Your task to perform on an android device: Search for Mexican restaurants on Maps Image 0: 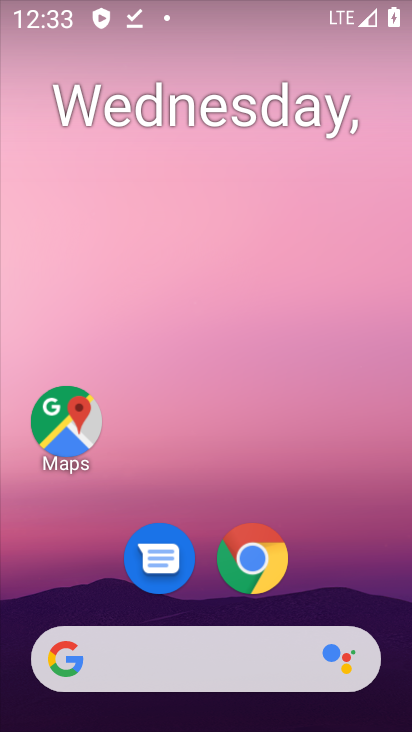
Step 0: drag from (227, 597) to (133, 222)
Your task to perform on an android device: Search for Mexican restaurants on Maps Image 1: 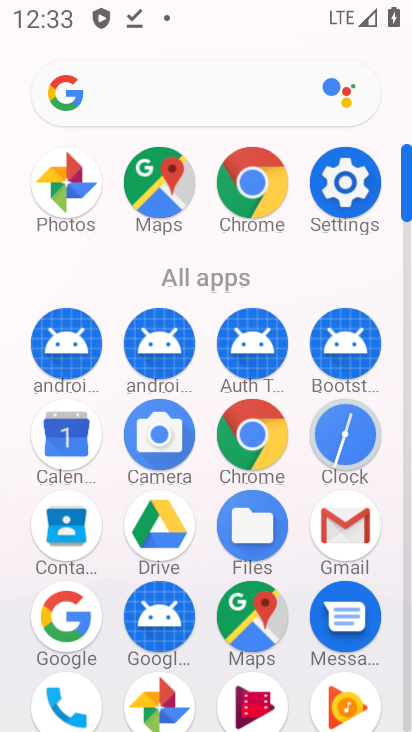
Step 1: click (229, 606)
Your task to perform on an android device: Search for Mexican restaurants on Maps Image 2: 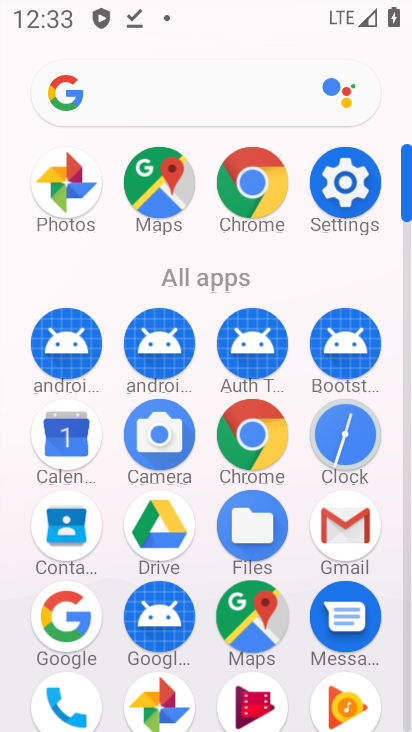
Step 2: click (229, 606)
Your task to perform on an android device: Search for Mexican restaurants on Maps Image 3: 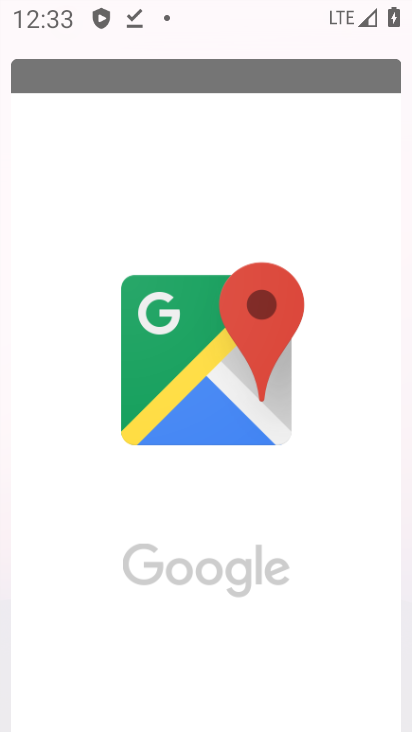
Step 3: click (240, 630)
Your task to perform on an android device: Search for Mexican restaurants on Maps Image 4: 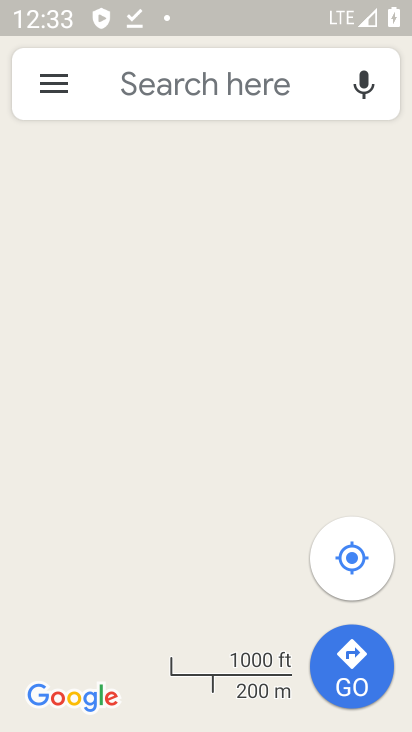
Step 4: click (125, 77)
Your task to perform on an android device: Search for Mexican restaurants on Maps Image 5: 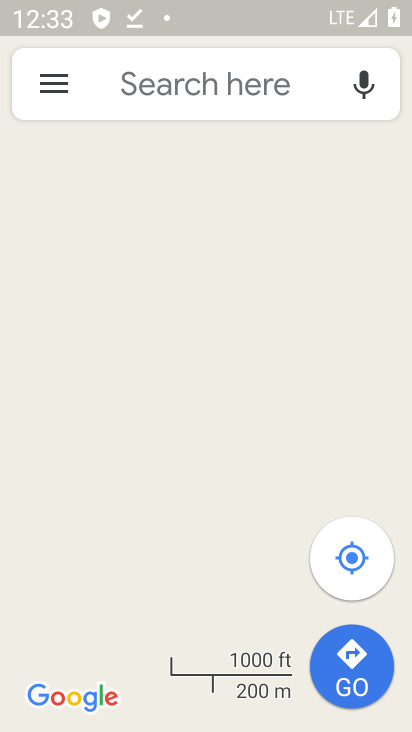
Step 5: click (125, 77)
Your task to perform on an android device: Search for Mexican restaurants on Maps Image 6: 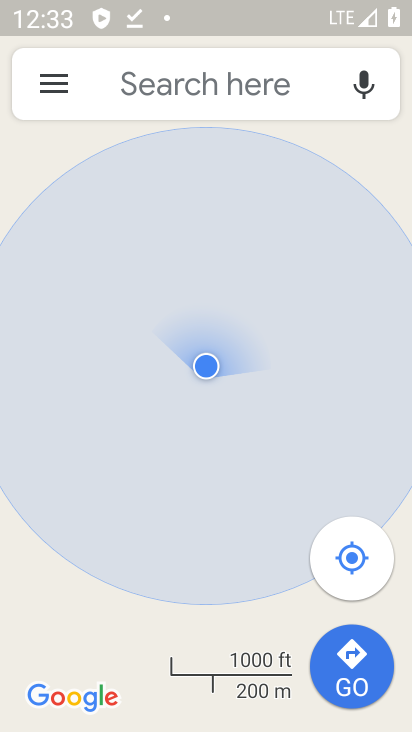
Step 6: click (124, 82)
Your task to perform on an android device: Search for Mexican restaurants on Maps Image 7: 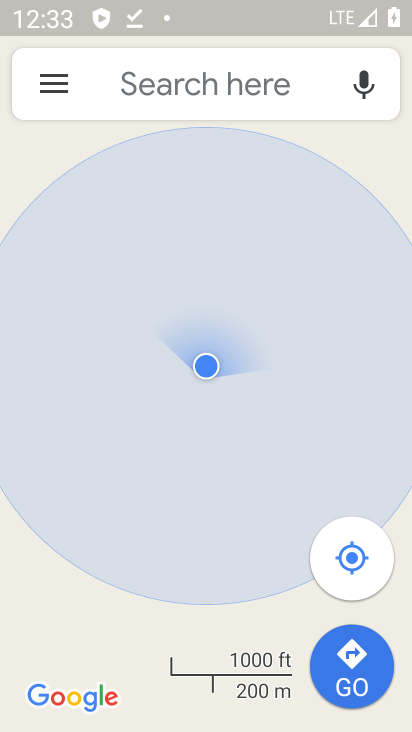
Step 7: click (125, 83)
Your task to perform on an android device: Search for Mexican restaurants on Maps Image 8: 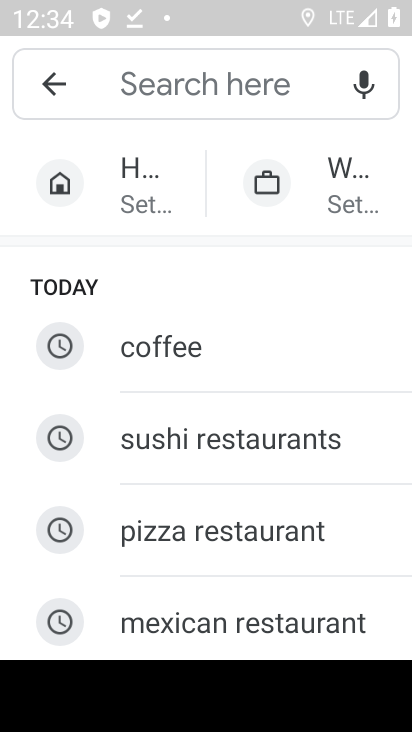
Step 8: type "mexican "
Your task to perform on an android device: Search for Mexican restaurants on Maps Image 9: 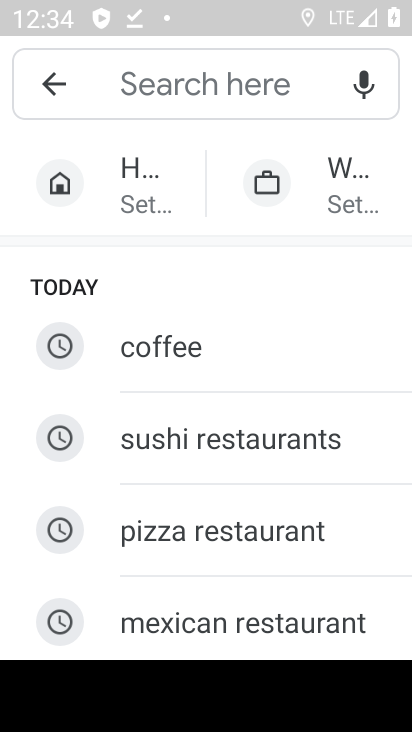
Step 9: click (187, 630)
Your task to perform on an android device: Search for Mexican restaurants on Maps Image 10: 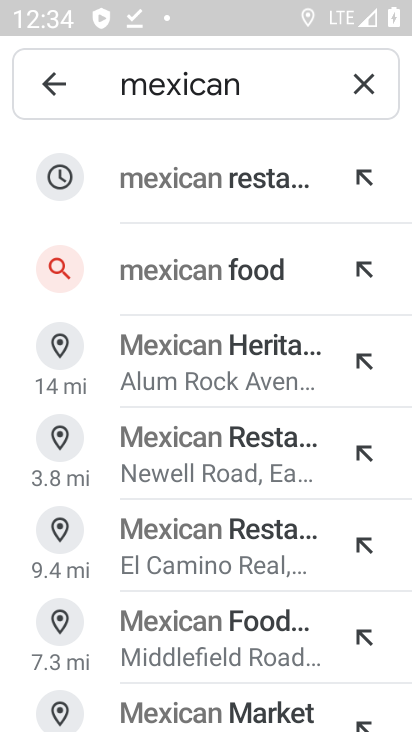
Step 10: click (247, 188)
Your task to perform on an android device: Search for Mexican restaurants on Maps Image 11: 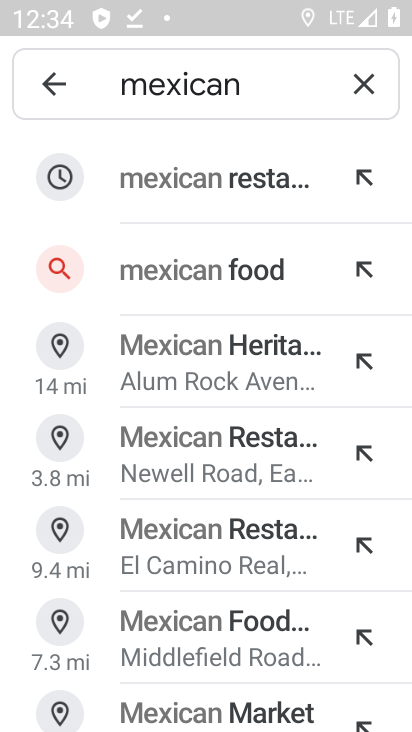
Step 11: click (247, 190)
Your task to perform on an android device: Search for Mexican restaurants on Maps Image 12: 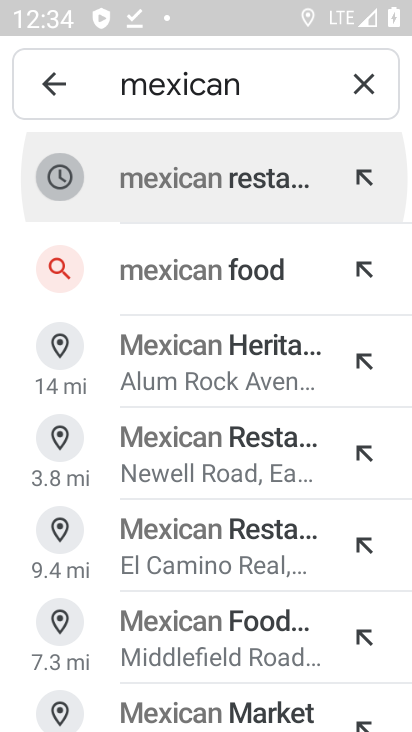
Step 12: click (233, 204)
Your task to perform on an android device: Search for Mexican restaurants on Maps Image 13: 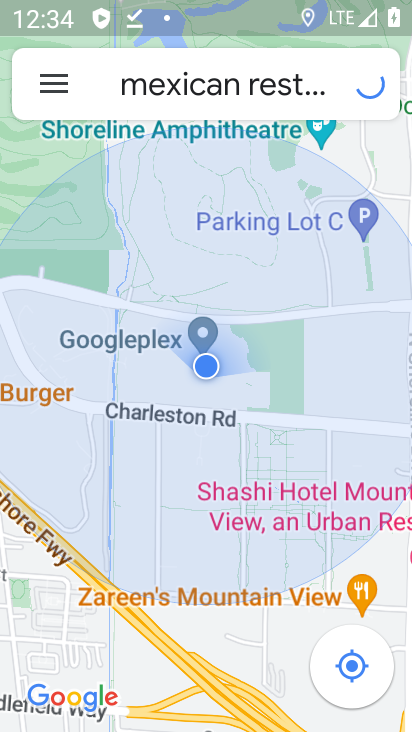
Step 13: click (235, 204)
Your task to perform on an android device: Search for Mexican restaurants on Maps Image 14: 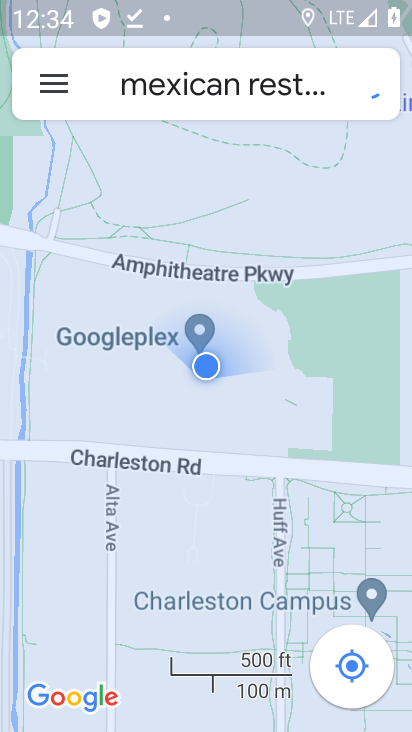
Step 14: click (249, 187)
Your task to perform on an android device: Search for Mexican restaurants on Maps Image 15: 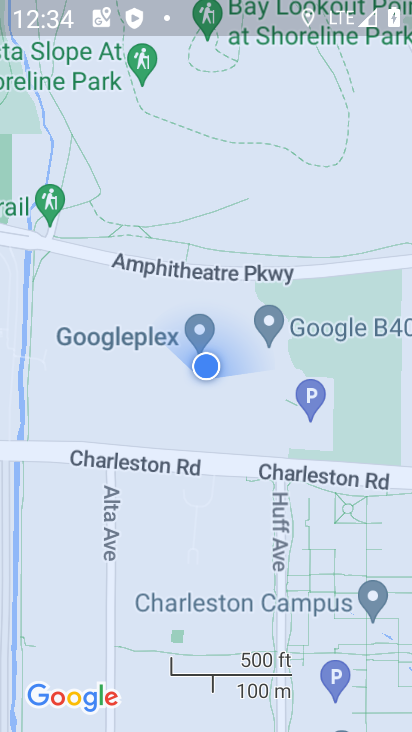
Step 15: task complete